Your task to perform on an android device: open a bookmark in the chrome app Image 0: 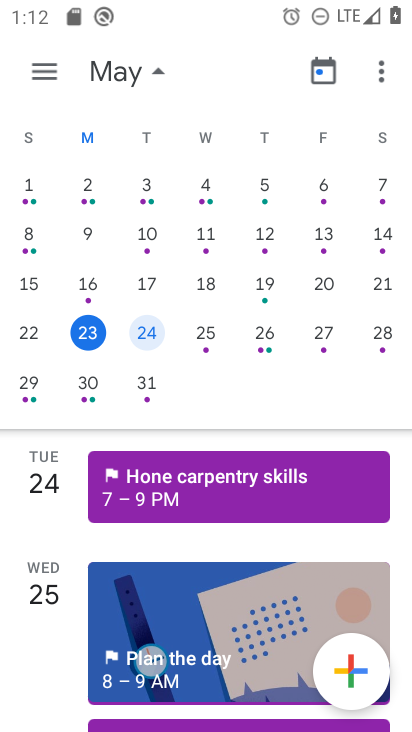
Step 0: press home button
Your task to perform on an android device: open a bookmark in the chrome app Image 1: 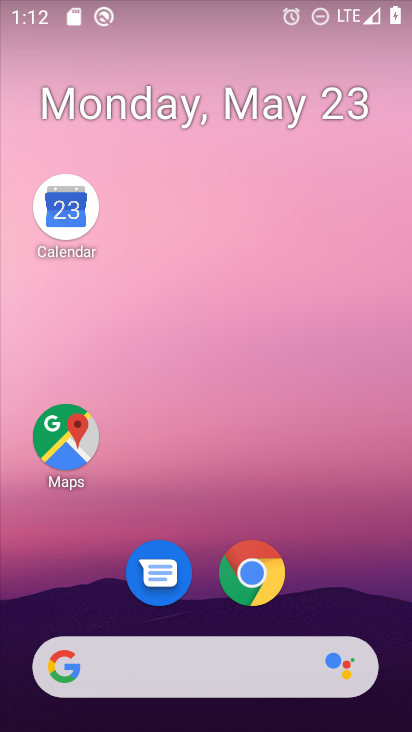
Step 1: click (244, 574)
Your task to perform on an android device: open a bookmark in the chrome app Image 2: 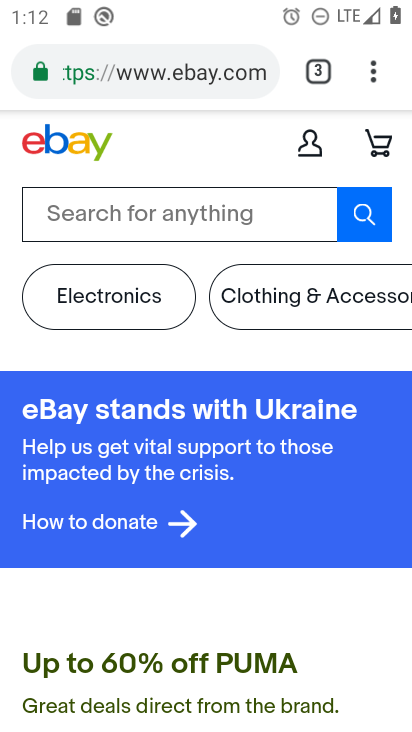
Step 2: click (365, 76)
Your task to perform on an android device: open a bookmark in the chrome app Image 3: 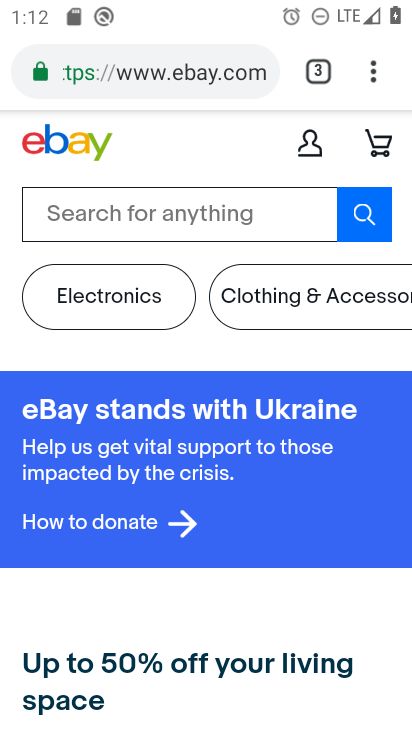
Step 3: click (367, 67)
Your task to perform on an android device: open a bookmark in the chrome app Image 4: 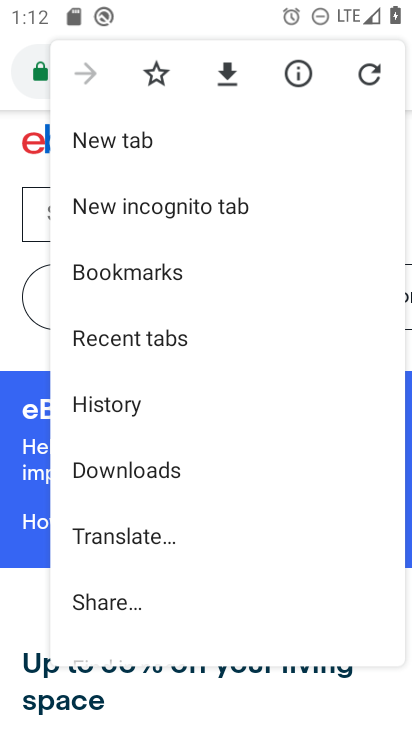
Step 4: click (150, 273)
Your task to perform on an android device: open a bookmark in the chrome app Image 5: 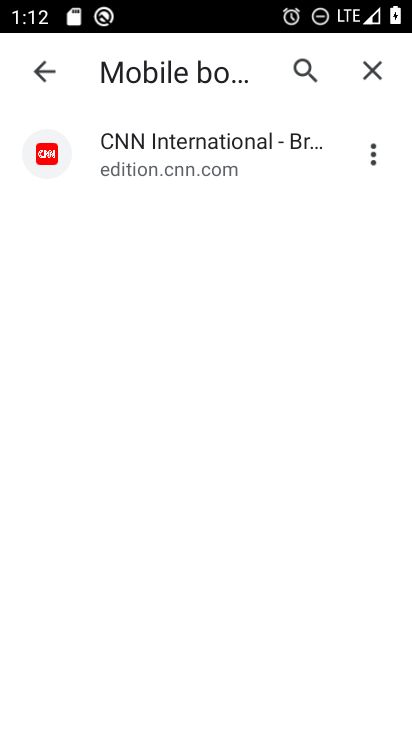
Step 5: click (171, 151)
Your task to perform on an android device: open a bookmark in the chrome app Image 6: 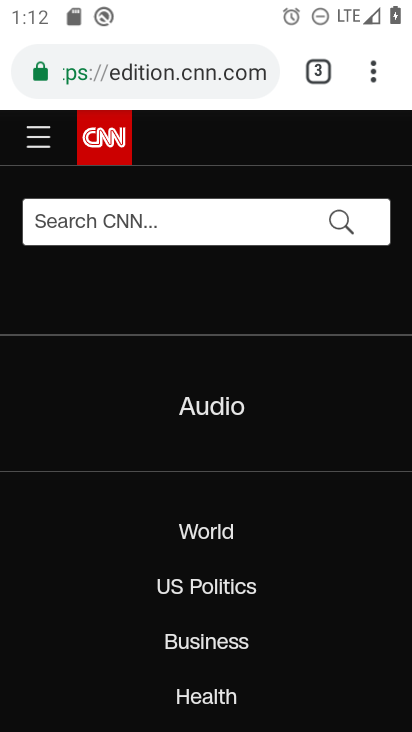
Step 6: task complete